Your task to perform on an android device: change the clock display to show seconds Image 0: 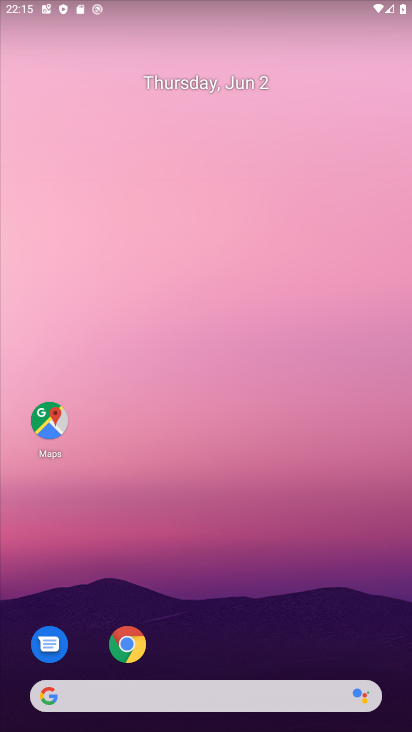
Step 0: drag from (183, 656) to (194, 204)
Your task to perform on an android device: change the clock display to show seconds Image 1: 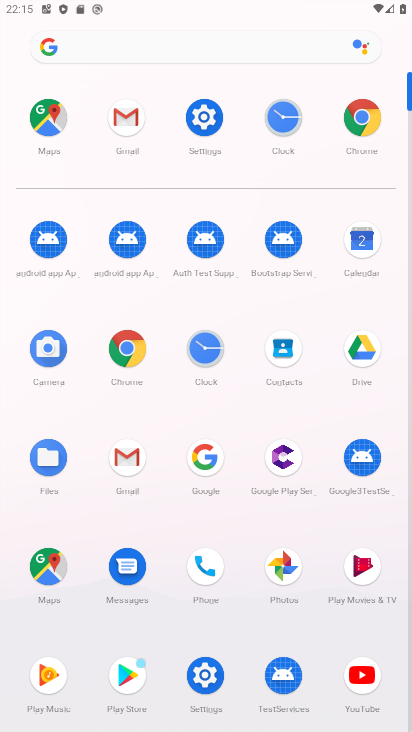
Step 1: click (199, 144)
Your task to perform on an android device: change the clock display to show seconds Image 2: 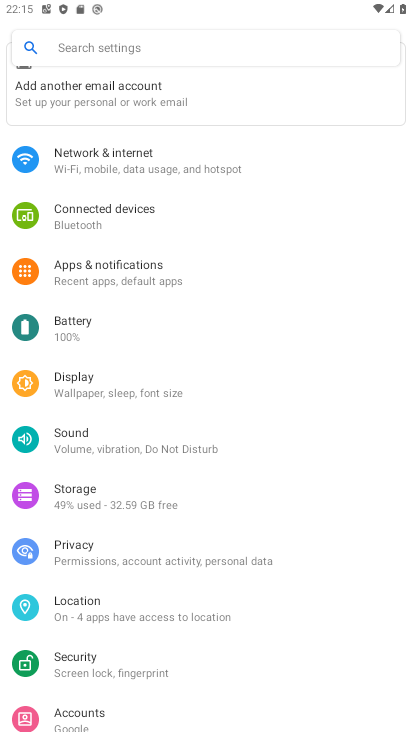
Step 2: press back button
Your task to perform on an android device: change the clock display to show seconds Image 3: 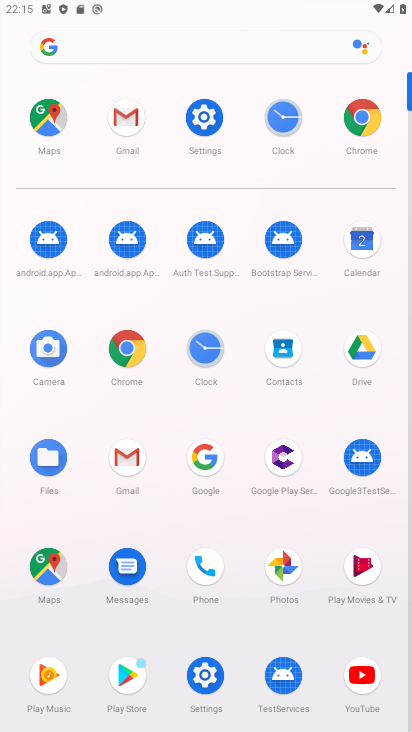
Step 3: click (195, 354)
Your task to perform on an android device: change the clock display to show seconds Image 4: 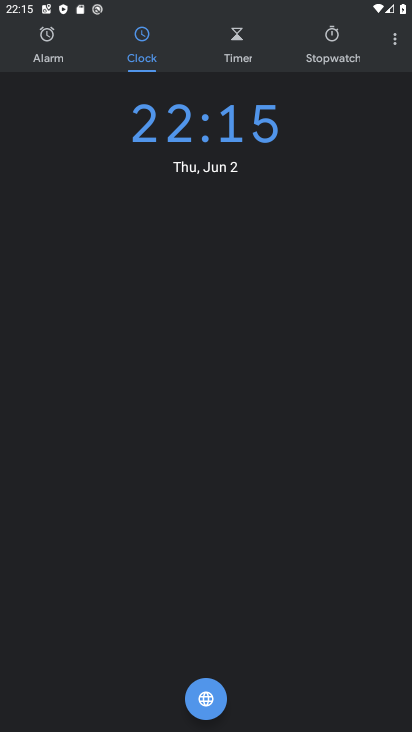
Step 4: click (397, 43)
Your task to perform on an android device: change the clock display to show seconds Image 5: 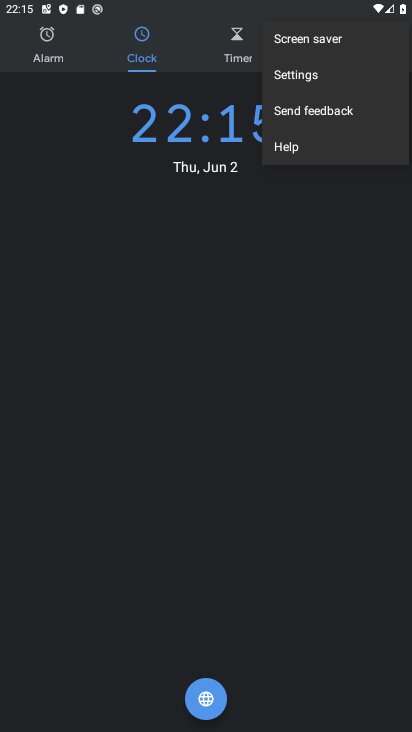
Step 5: click (322, 73)
Your task to perform on an android device: change the clock display to show seconds Image 6: 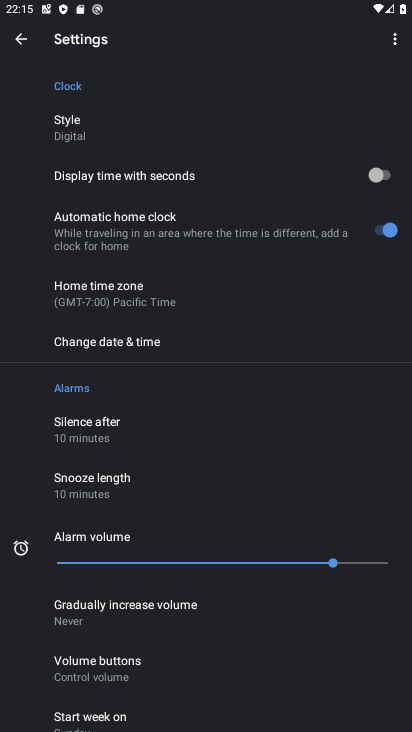
Step 6: click (390, 182)
Your task to perform on an android device: change the clock display to show seconds Image 7: 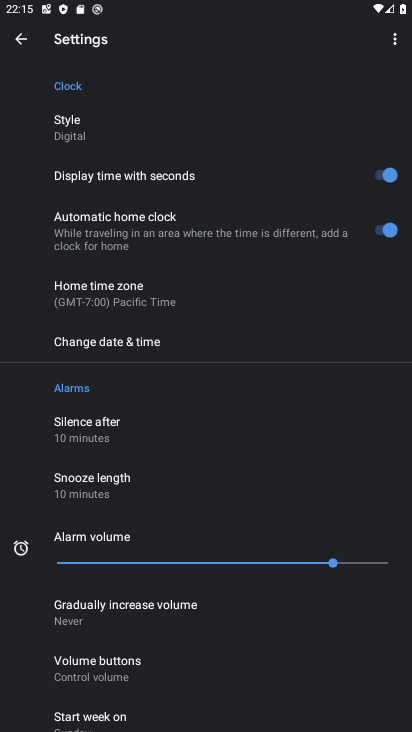
Step 7: task complete